Your task to perform on an android device: Is it going to rain this weekend? Image 0: 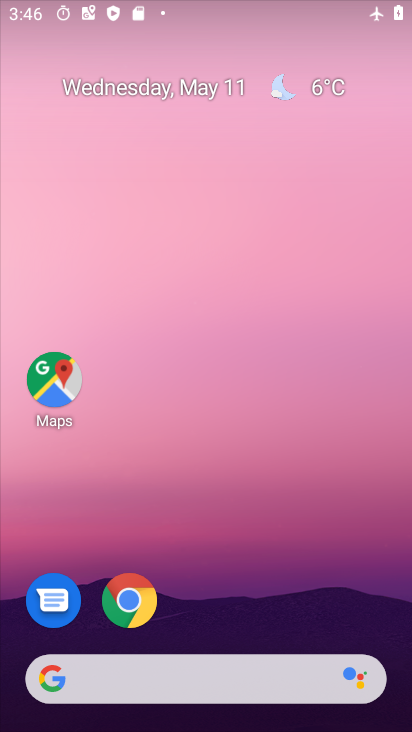
Step 0: click (184, 84)
Your task to perform on an android device: Is it going to rain this weekend? Image 1: 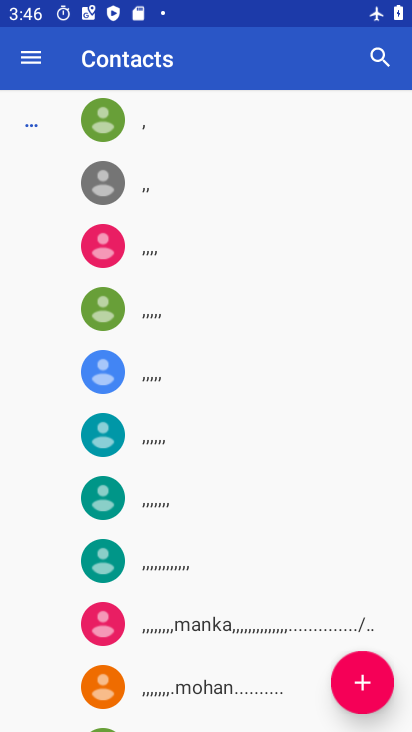
Step 1: press back button
Your task to perform on an android device: Is it going to rain this weekend? Image 2: 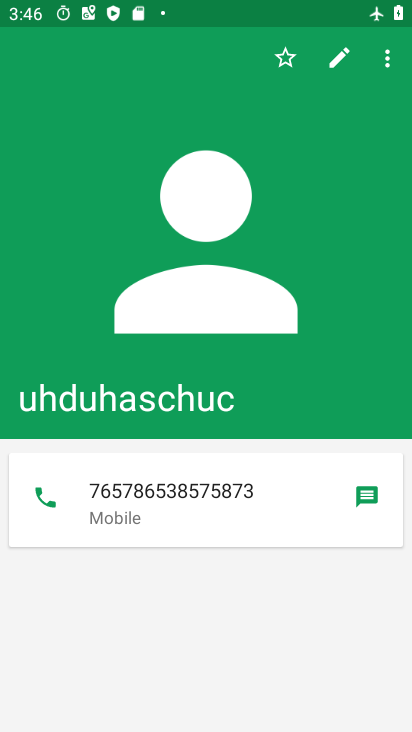
Step 2: press home button
Your task to perform on an android device: Is it going to rain this weekend? Image 3: 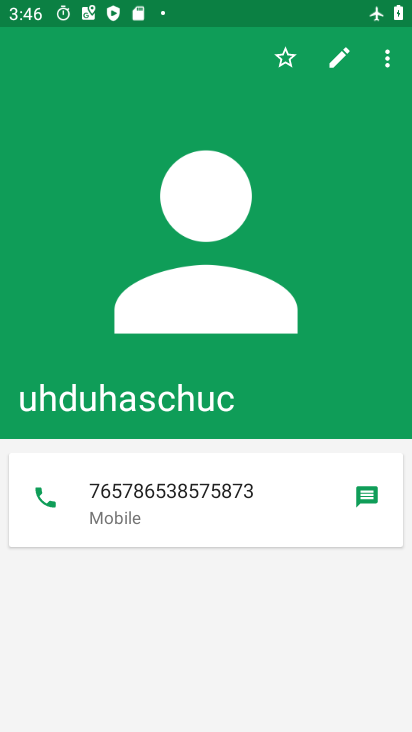
Step 3: press home button
Your task to perform on an android device: Is it going to rain this weekend? Image 4: 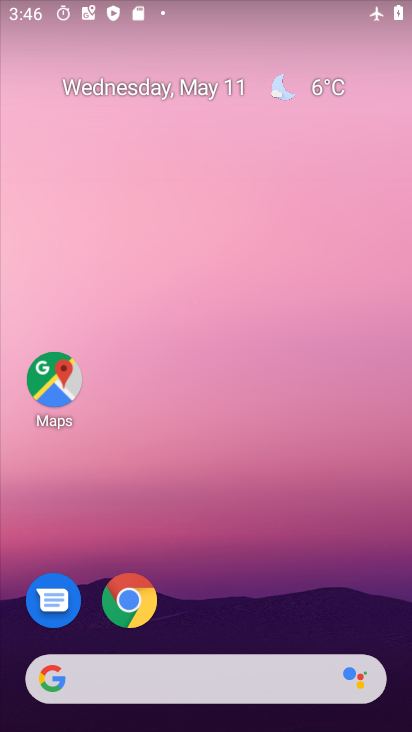
Step 4: click (270, 82)
Your task to perform on an android device: Is it going to rain this weekend? Image 5: 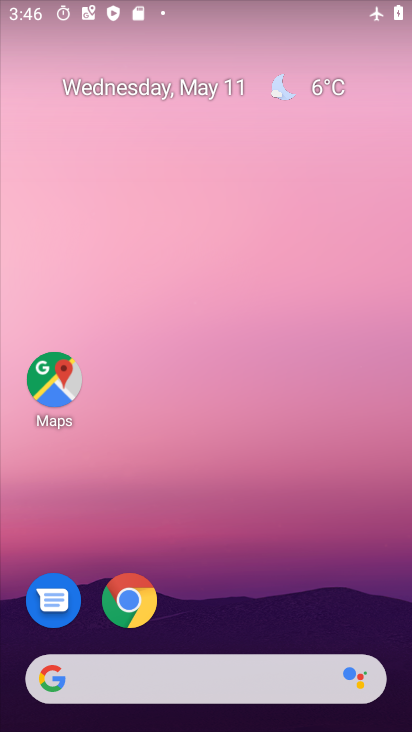
Step 5: click (271, 81)
Your task to perform on an android device: Is it going to rain this weekend? Image 6: 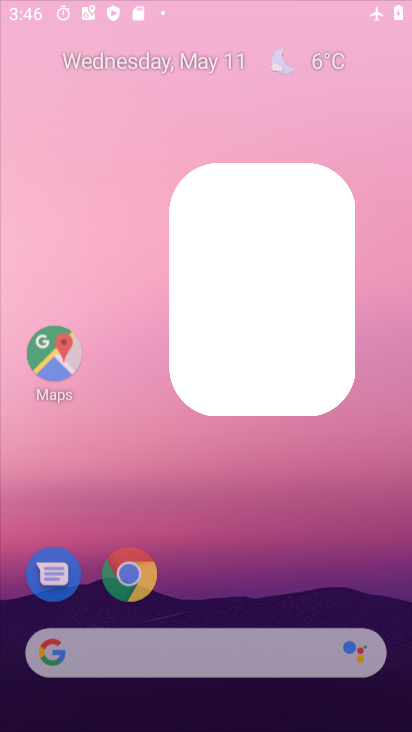
Step 6: click (274, 82)
Your task to perform on an android device: Is it going to rain this weekend? Image 7: 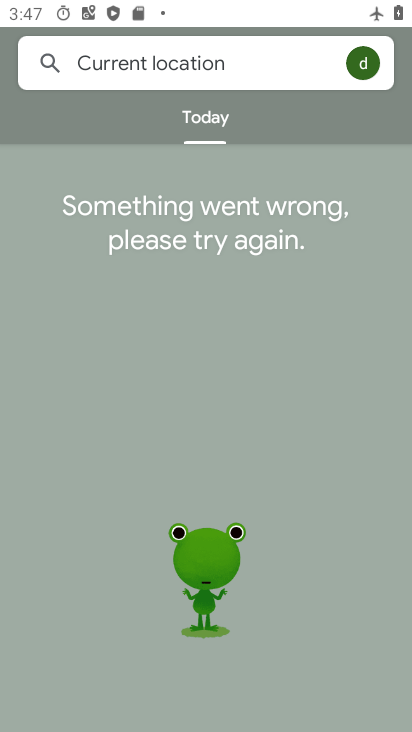
Step 7: task complete